Your task to perform on an android device: What's the weather going to be this weekend? Image 0: 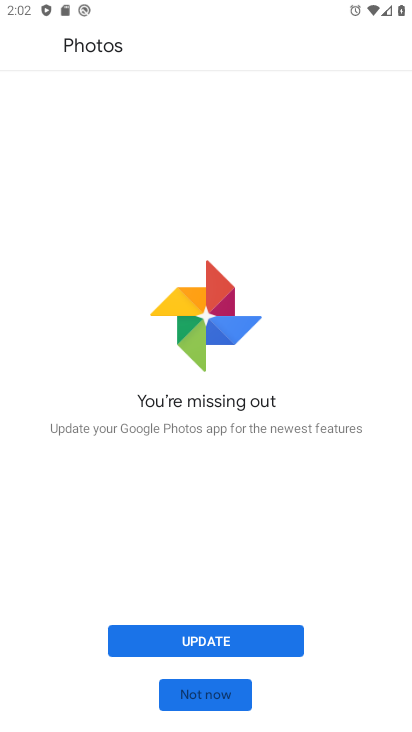
Step 0: press home button
Your task to perform on an android device: What's the weather going to be this weekend? Image 1: 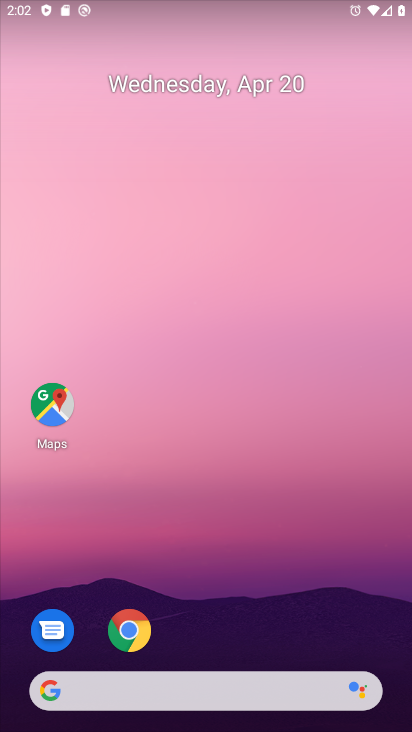
Step 1: click (126, 624)
Your task to perform on an android device: What's the weather going to be this weekend? Image 2: 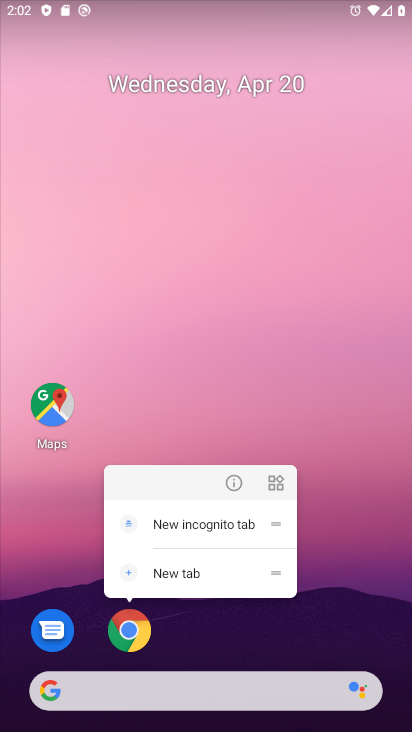
Step 2: click (126, 624)
Your task to perform on an android device: What's the weather going to be this weekend? Image 3: 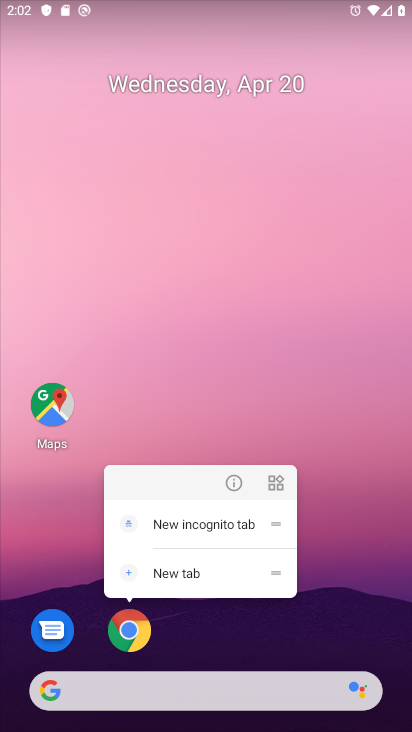
Step 3: click (126, 624)
Your task to perform on an android device: What's the weather going to be this weekend? Image 4: 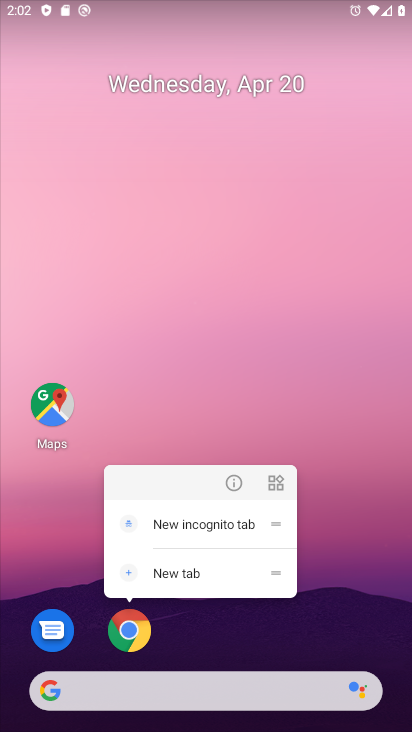
Step 4: click (131, 630)
Your task to perform on an android device: What's the weather going to be this weekend? Image 5: 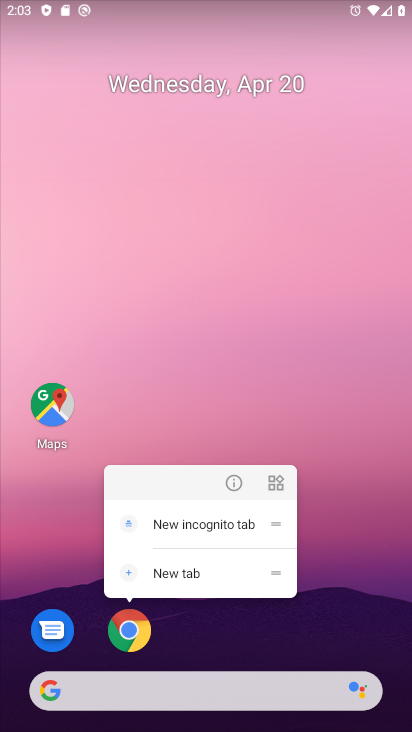
Step 5: click (132, 636)
Your task to perform on an android device: What's the weather going to be this weekend? Image 6: 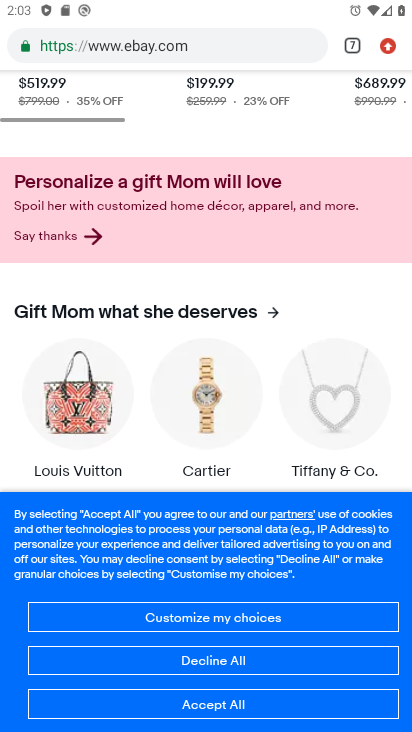
Step 6: click (354, 45)
Your task to perform on an android device: What's the weather going to be this weekend? Image 7: 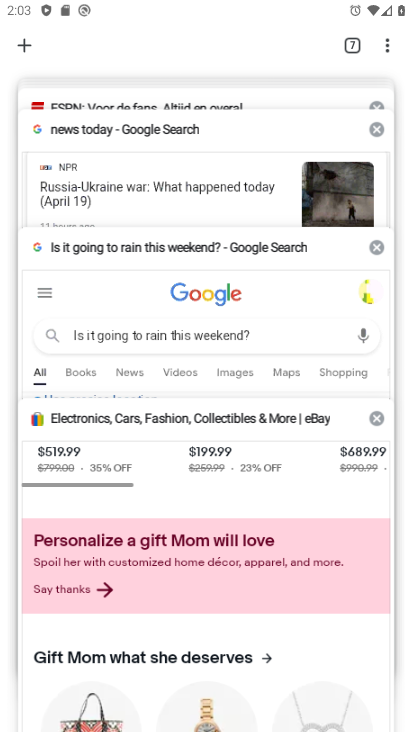
Step 7: click (26, 40)
Your task to perform on an android device: What's the weather going to be this weekend? Image 8: 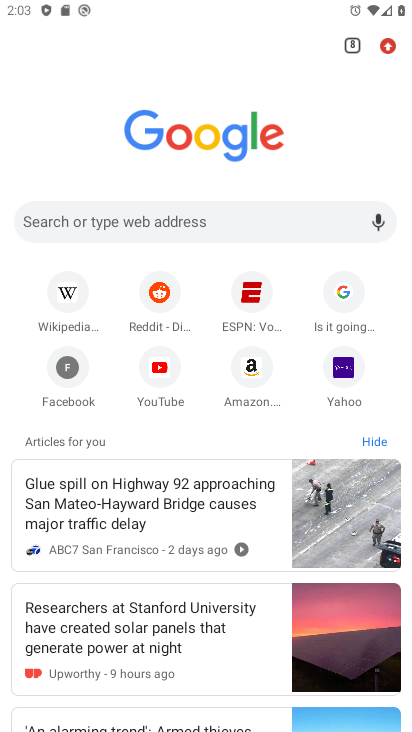
Step 8: click (73, 214)
Your task to perform on an android device: What's the weather going to be this weekend? Image 9: 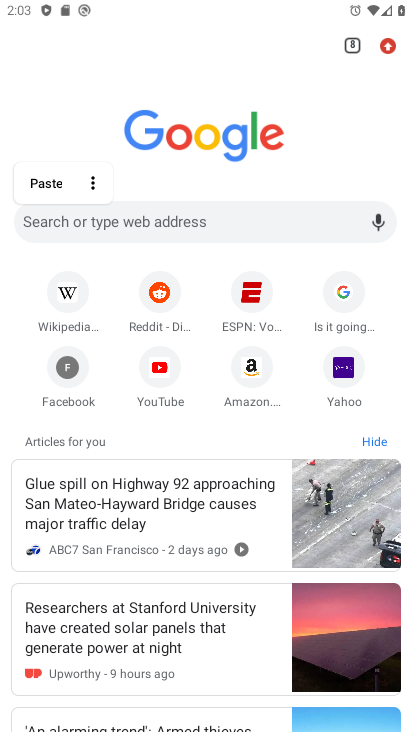
Step 9: type "what's the weather going to be this weekend"
Your task to perform on an android device: What's the weather going to be this weekend? Image 10: 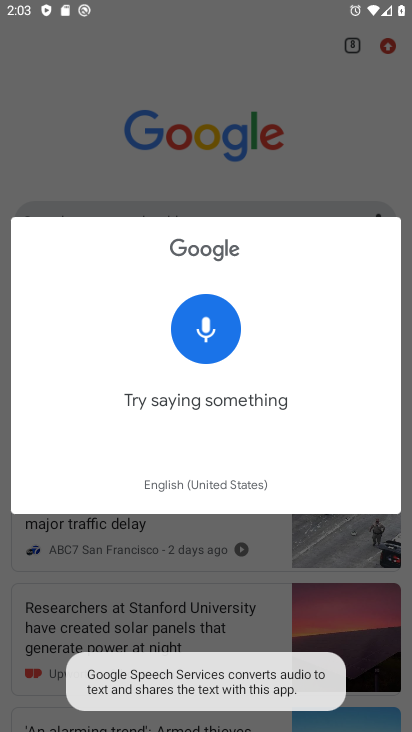
Step 10: click (169, 577)
Your task to perform on an android device: What's the weather going to be this weekend? Image 11: 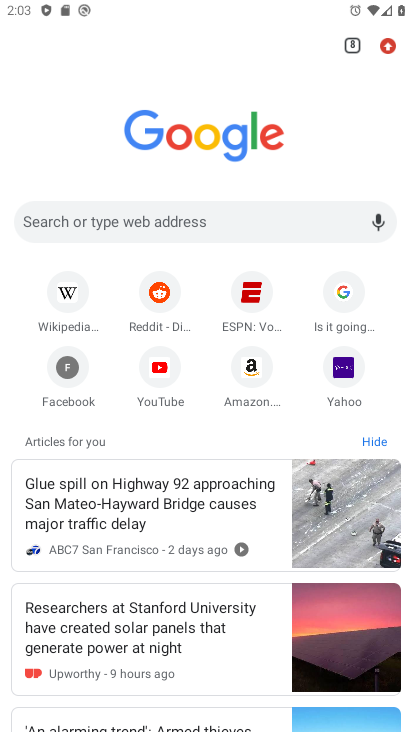
Step 11: click (142, 212)
Your task to perform on an android device: What's the weather going to be this weekend? Image 12: 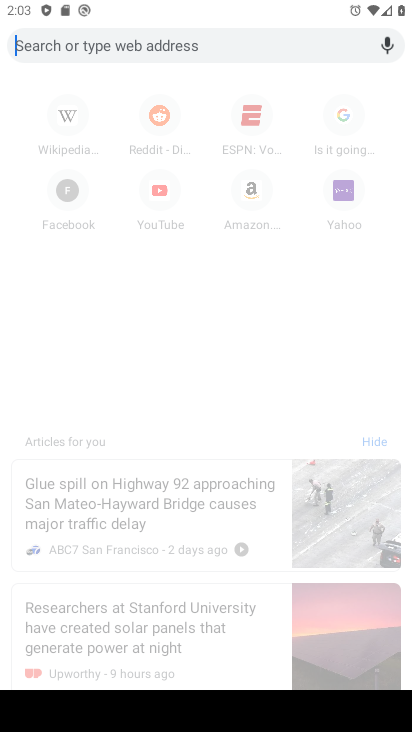
Step 12: click (168, 45)
Your task to perform on an android device: What's the weather going to be this weekend? Image 13: 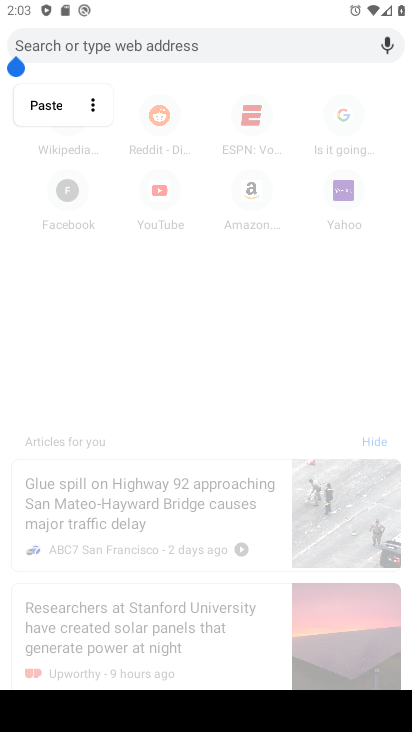
Step 13: click (38, 109)
Your task to perform on an android device: What's the weather going to be this weekend? Image 14: 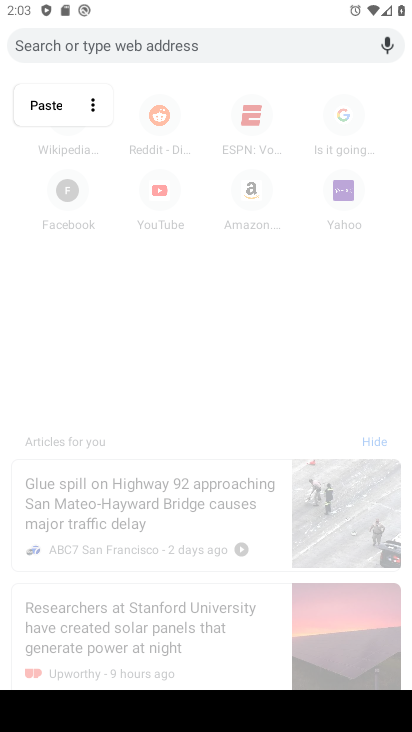
Step 14: click (42, 106)
Your task to perform on an android device: What's the weather going to be this weekend? Image 15: 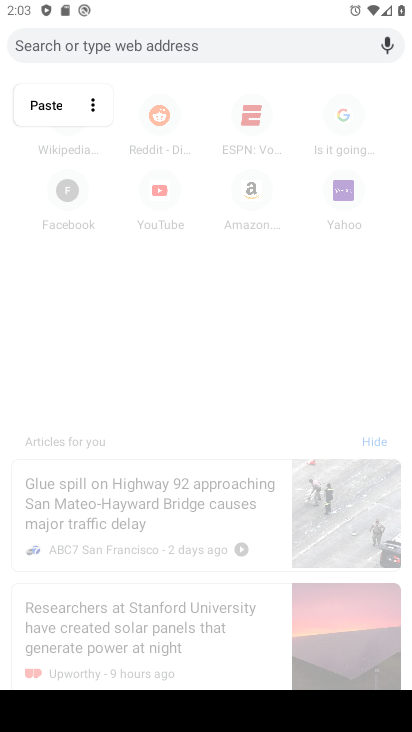
Step 15: click (47, 104)
Your task to perform on an android device: What's the weather going to be this weekend? Image 16: 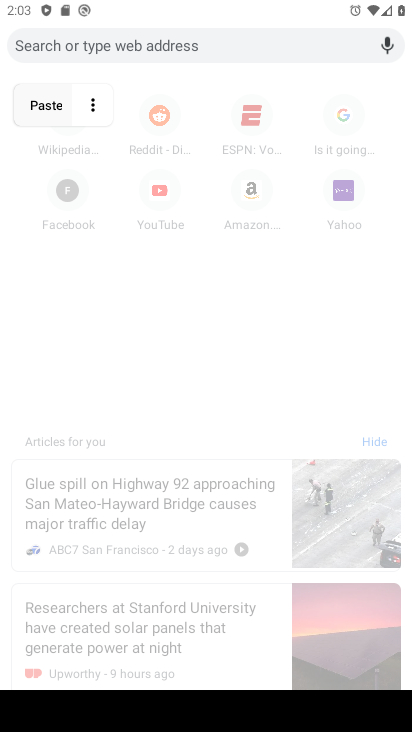
Step 16: click (47, 104)
Your task to perform on an android device: What's the weather going to be this weekend? Image 17: 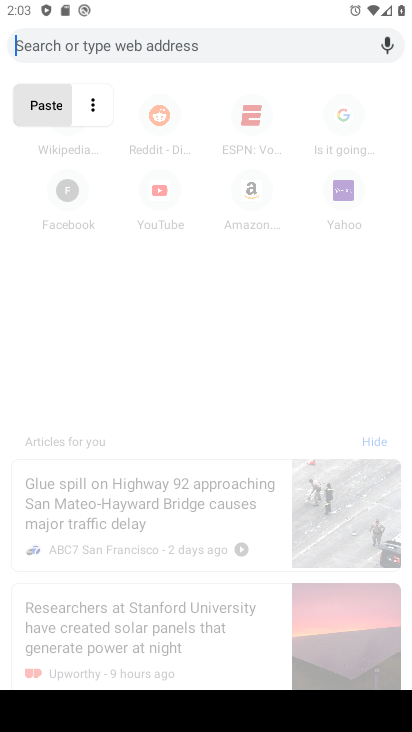
Step 17: click (47, 104)
Your task to perform on an android device: What's the weather going to be this weekend? Image 18: 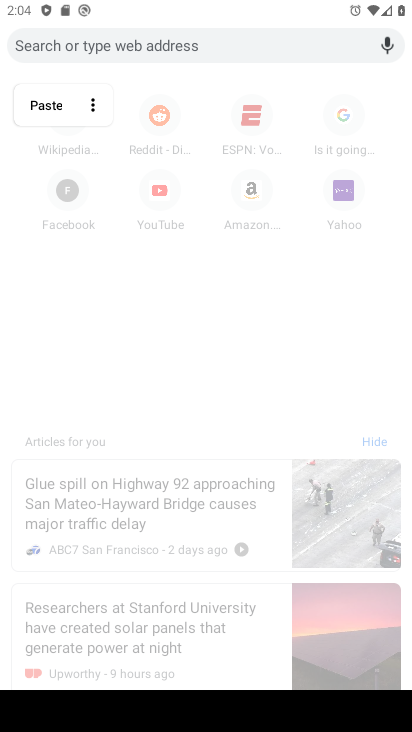
Step 18: type "weekend weather"
Your task to perform on an android device: What's the weather going to be this weekend? Image 19: 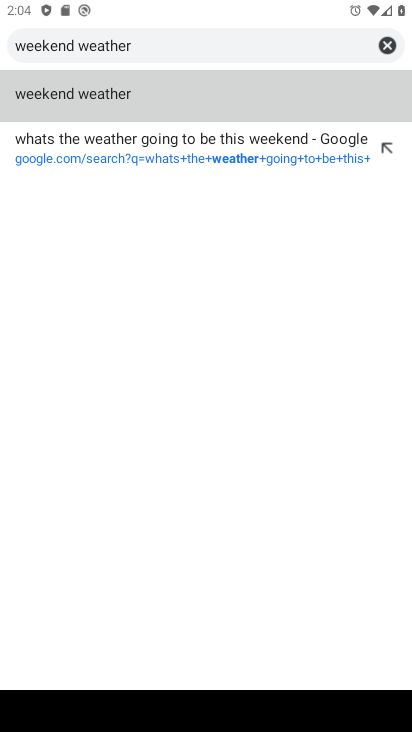
Step 19: click (118, 167)
Your task to perform on an android device: What's the weather going to be this weekend? Image 20: 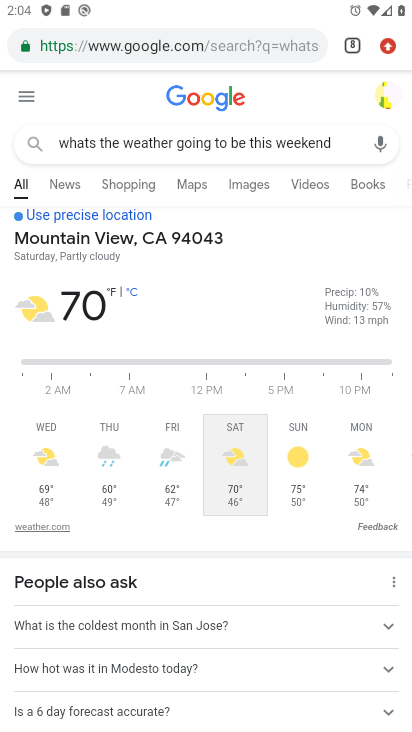
Step 20: task complete